Your task to perform on an android device: What's the weather? Image 0: 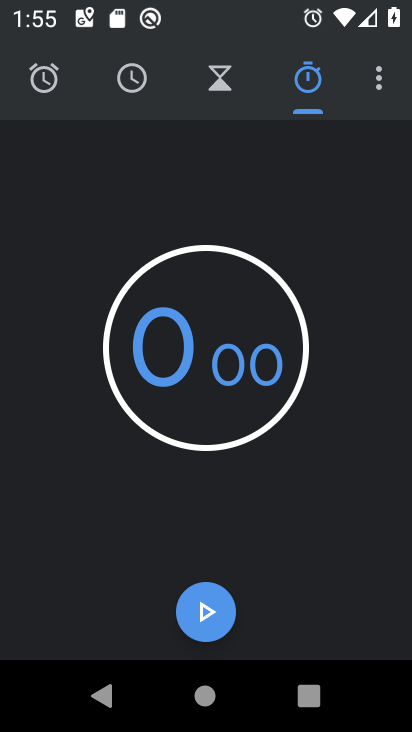
Step 0: press home button
Your task to perform on an android device: What's the weather? Image 1: 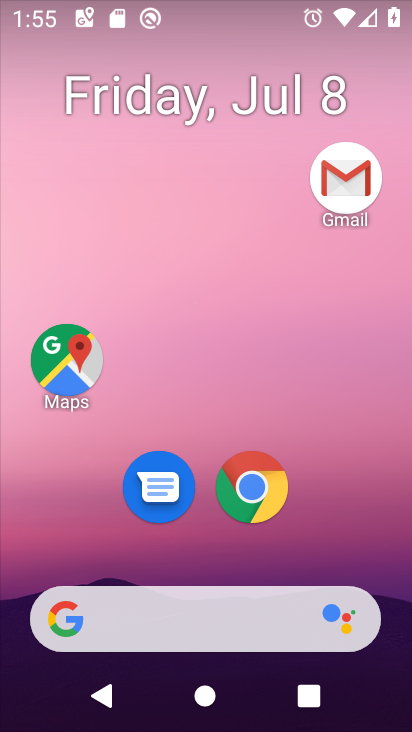
Step 1: drag from (374, 539) to (370, 345)
Your task to perform on an android device: What's the weather? Image 2: 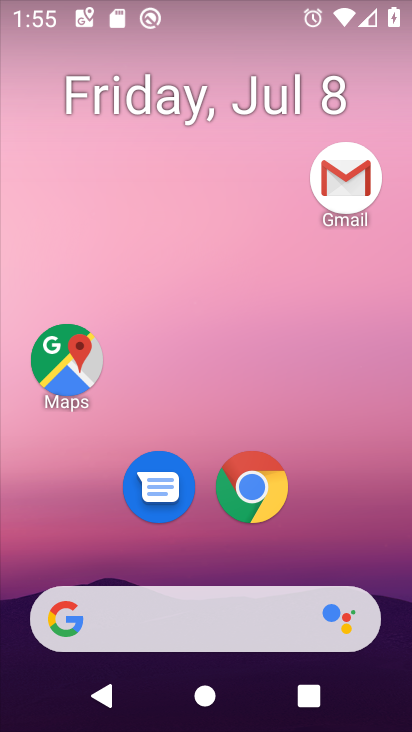
Step 2: drag from (364, 492) to (378, 86)
Your task to perform on an android device: What's the weather? Image 3: 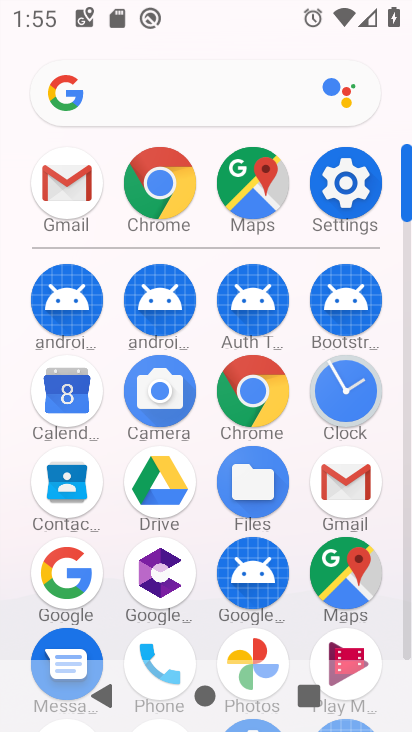
Step 3: click (214, 82)
Your task to perform on an android device: What's the weather? Image 4: 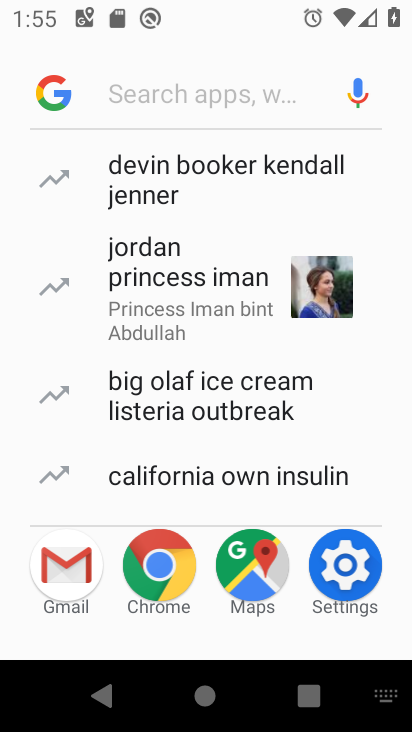
Step 4: type "weather"
Your task to perform on an android device: What's the weather? Image 5: 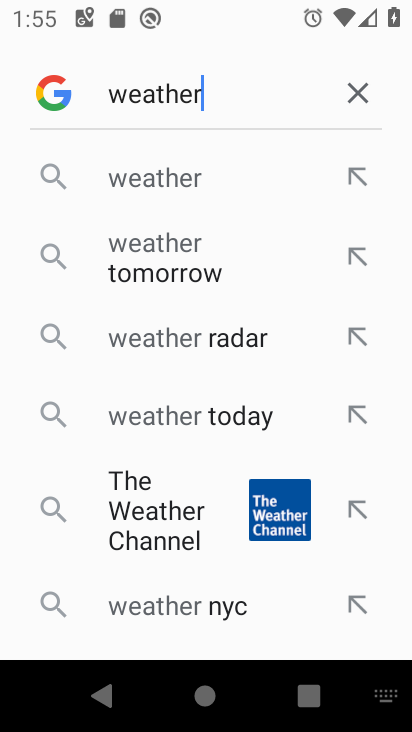
Step 5: click (181, 178)
Your task to perform on an android device: What's the weather? Image 6: 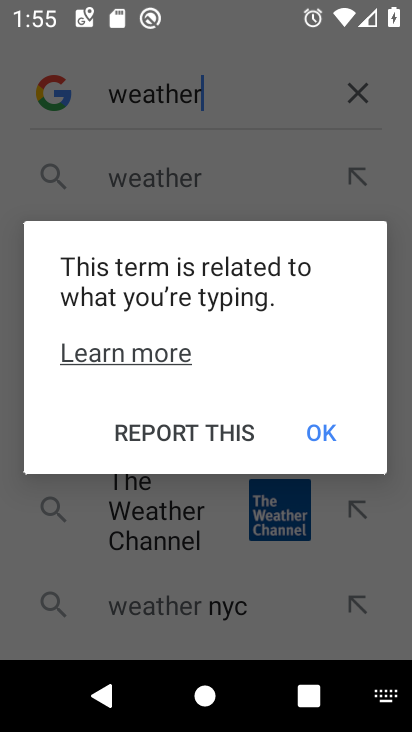
Step 6: click (325, 433)
Your task to perform on an android device: What's the weather? Image 7: 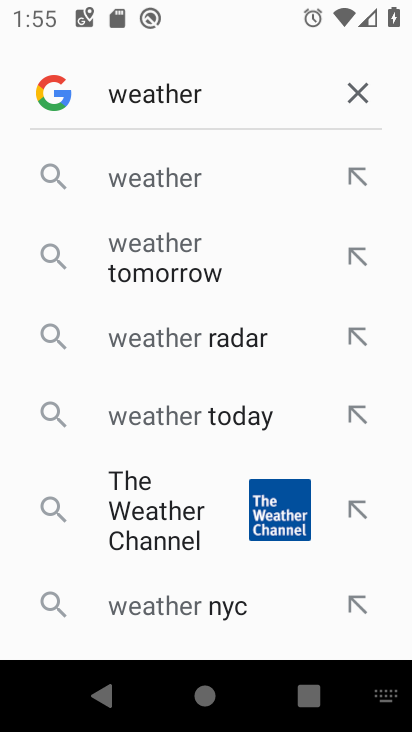
Step 7: click (197, 189)
Your task to perform on an android device: What's the weather? Image 8: 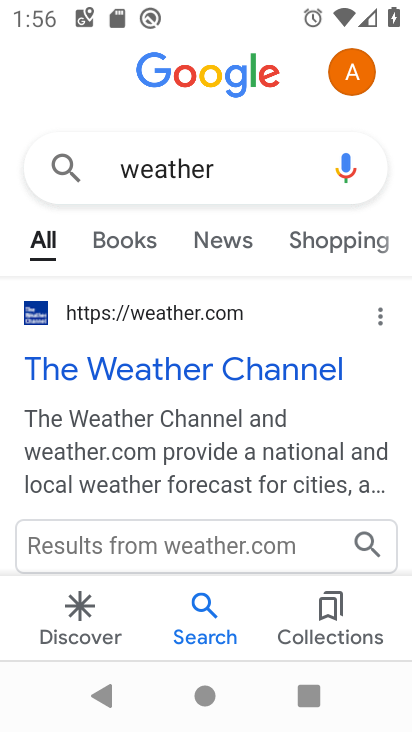
Step 8: task complete